Your task to perform on an android device: turn vacation reply on in the gmail app Image 0: 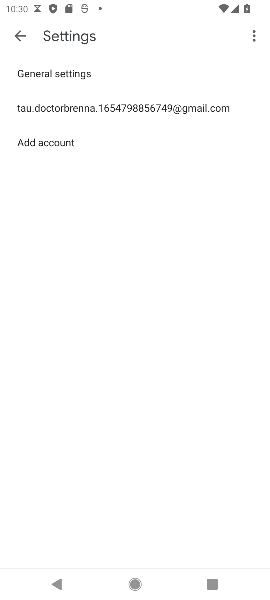
Step 0: press home button
Your task to perform on an android device: turn vacation reply on in the gmail app Image 1: 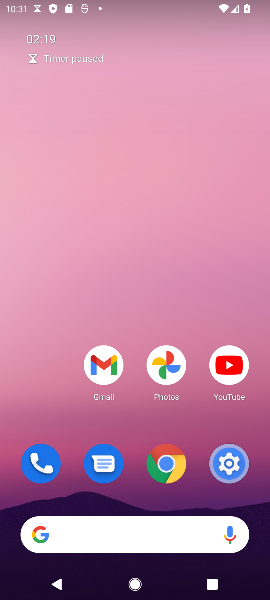
Step 1: click (92, 368)
Your task to perform on an android device: turn vacation reply on in the gmail app Image 2: 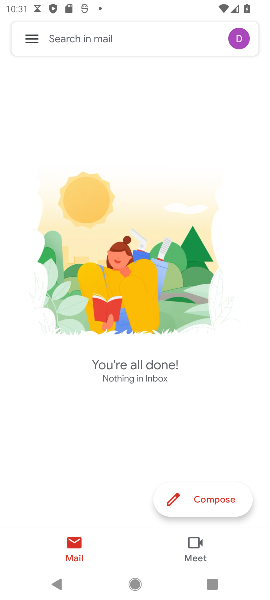
Step 2: task complete